Your task to perform on an android device: uninstall "Grab" Image 0: 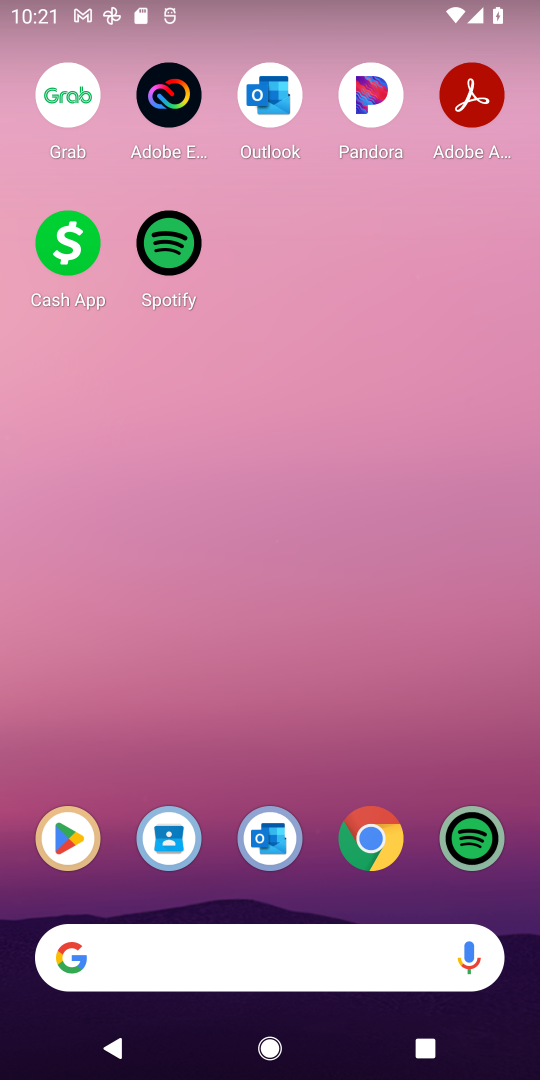
Step 0: click (72, 845)
Your task to perform on an android device: uninstall "Grab" Image 1: 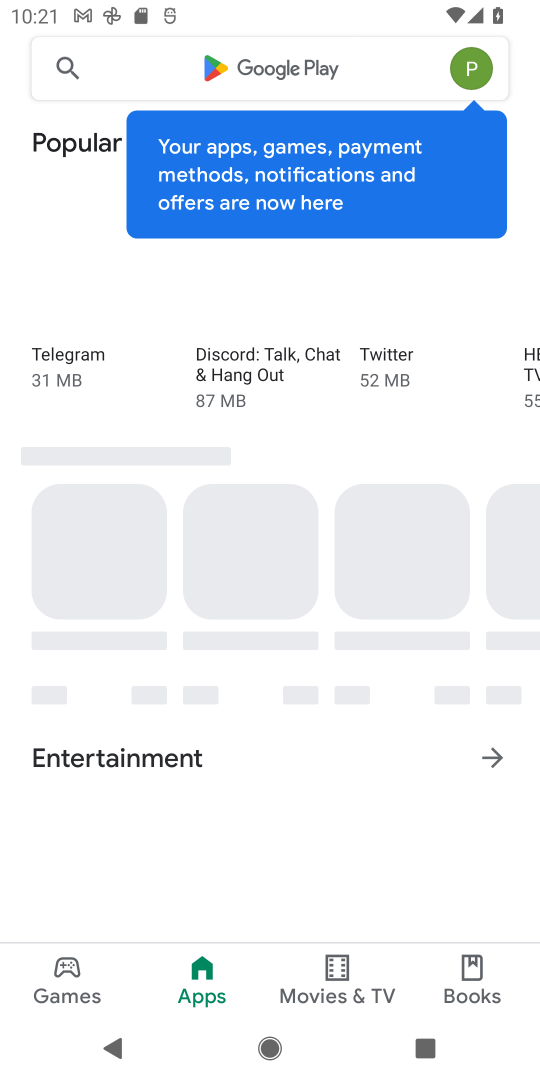
Step 1: click (272, 81)
Your task to perform on an android device: uninstall "Grab" Image 2: 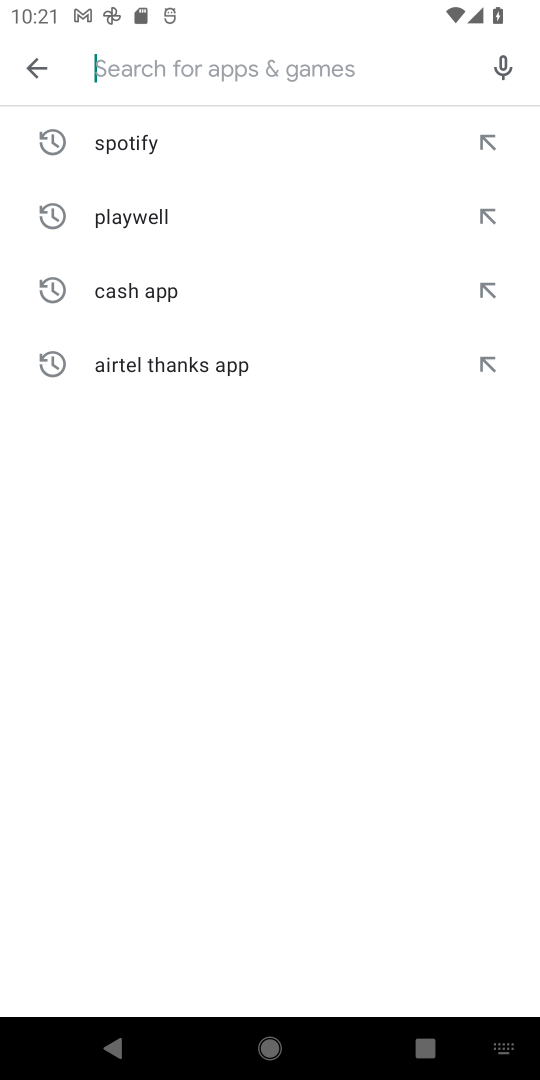
Step 2: type "Grab"
Your task to perform on an android device: uninstall "Grab" Image 3: 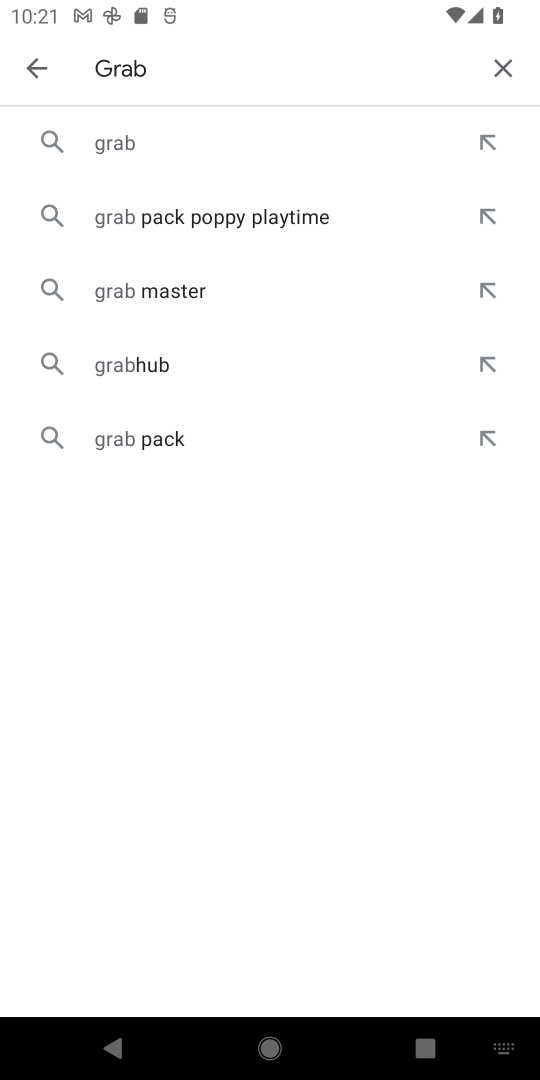
Step 3: click (181, 137)
Your task to perform on an android device: uninstall "Grab" Image 4: 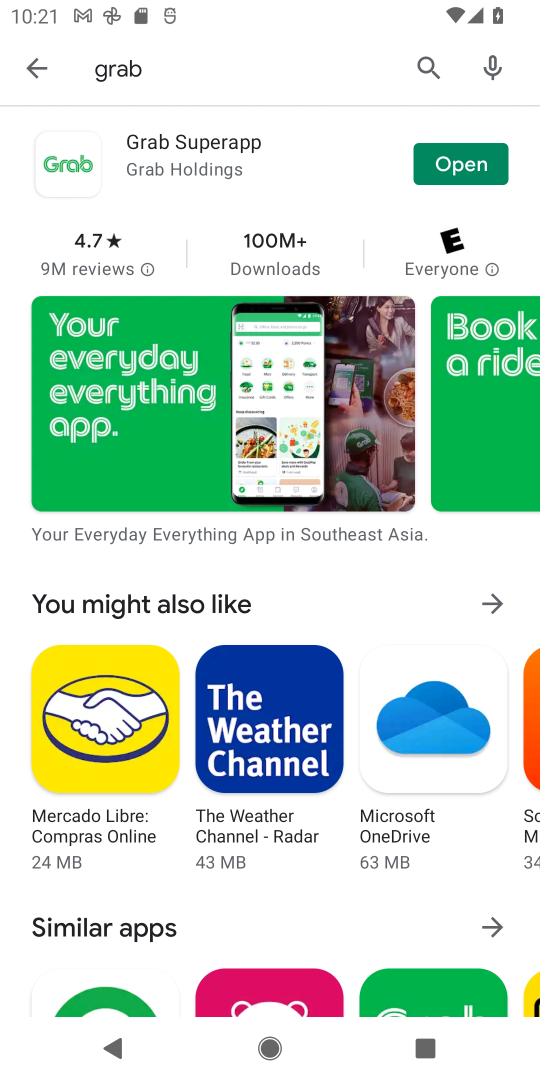
Step 4: click (191, 151)
Your task to perform on an android device: uninstall "Grab" Image 5: 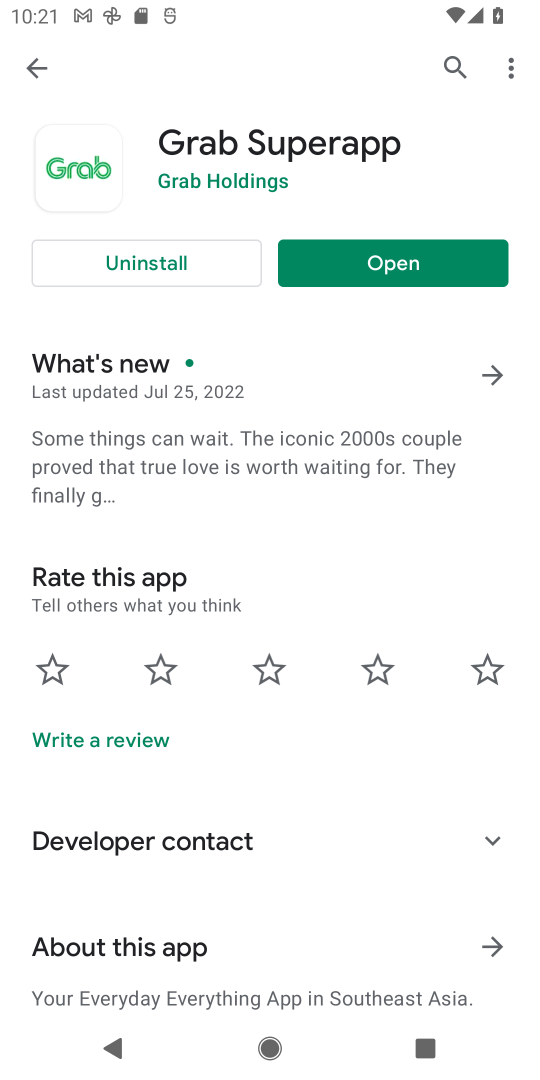
Step 5: click (166, 258)
Your task to perform on an android device: uninstall "Grab" Image 6: 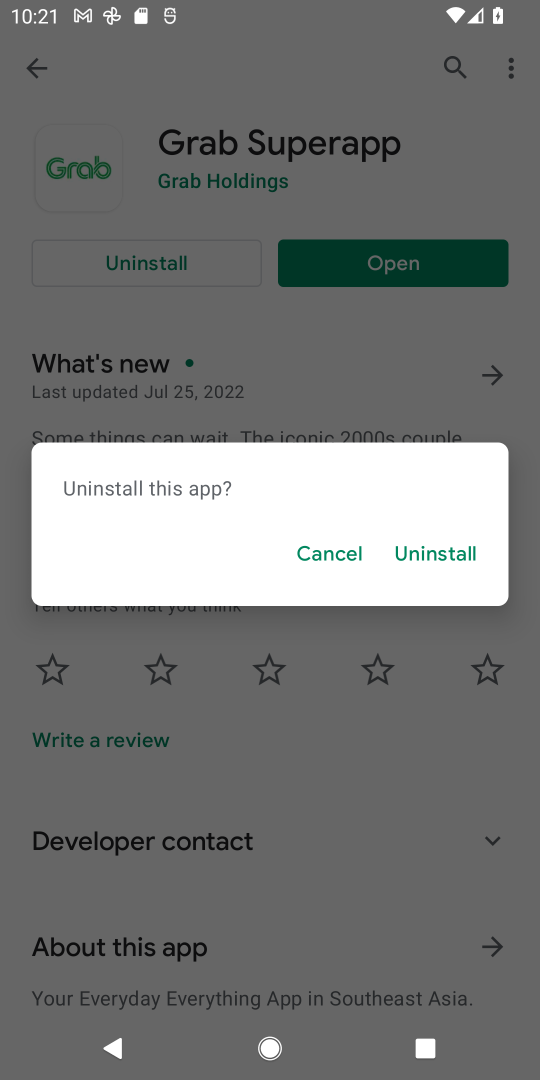
Step 6: click (447, 549)
Your task to perform on an android device: uninstall "Grab" Image 7: 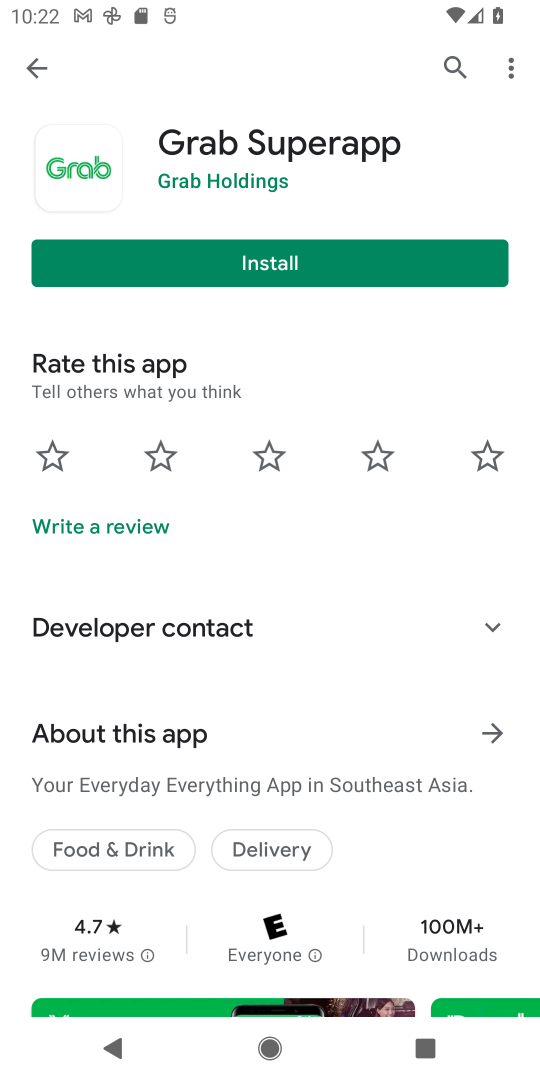
Step 7: task complete